Your task to perform on an android device: Open calendar and show me the fourth week of next month Image 0: 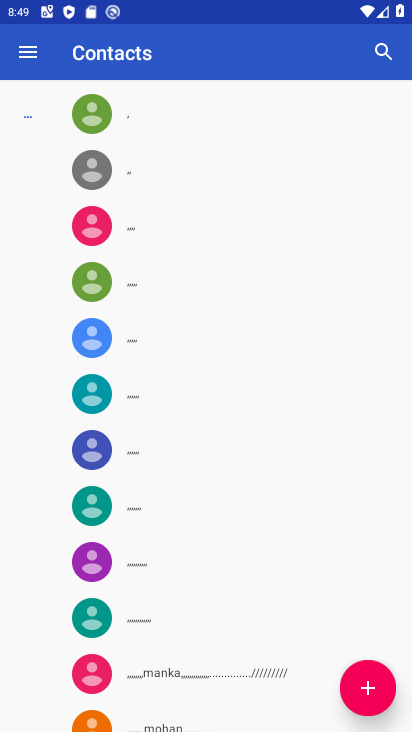
Step 0: press home button
Your task to perform on an android device: Open calendar and show me the fourth week of next month Image 1: 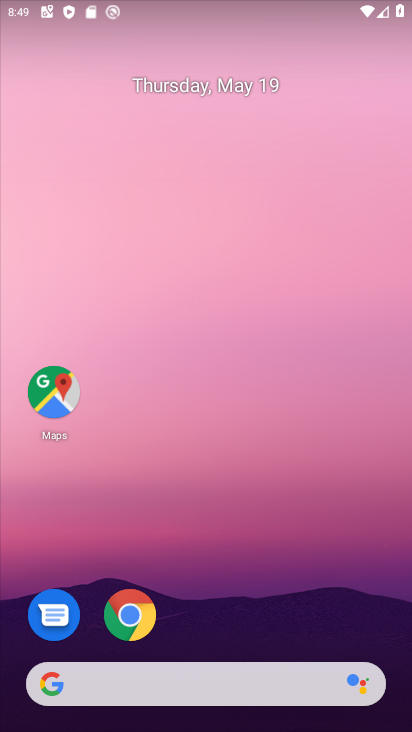
Step 1: drag from (280, 625) to (285, 53)
Your task to perform on an android device: Open calendar and show me the fourth week of next month Image 2: 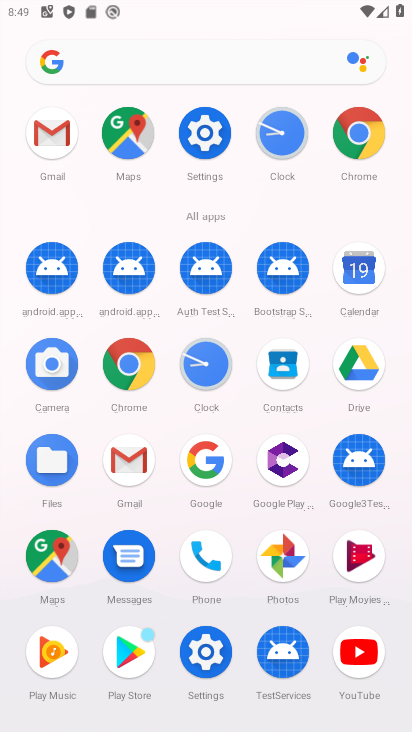
Step 2: click (361, 272)
Your task to perform on an android device: Open calendar and show me the fourth week of next month Image 3: 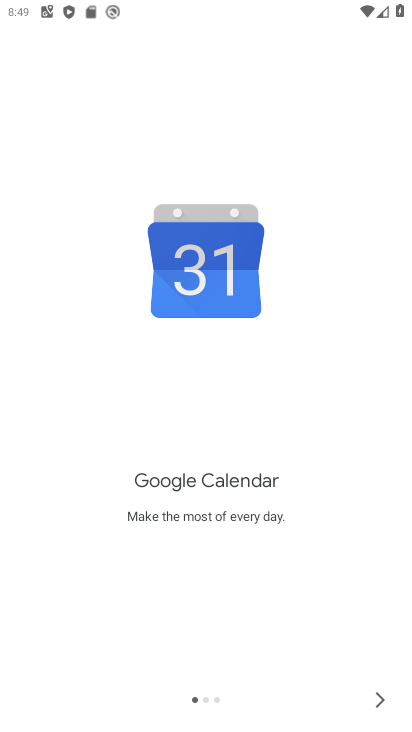
Step 3: click (380, 706)
Your task to perform on an android device: Open calendar and show me the fourth week of next month Image 4: 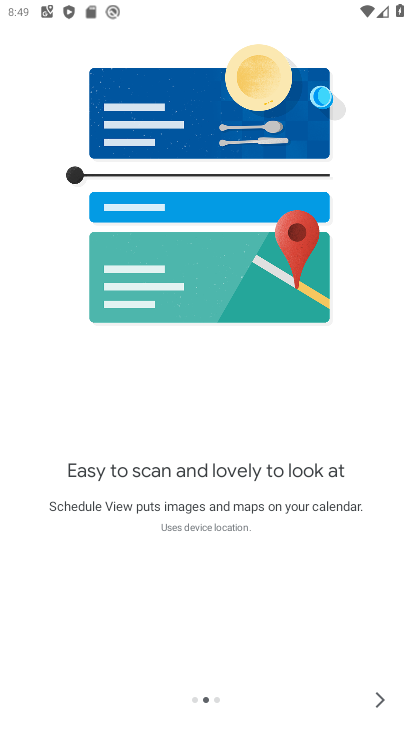
Step 4: click (379, 705)
Your task to perform on an android device: Open calendar and show me the fourth week of next month Image 5: 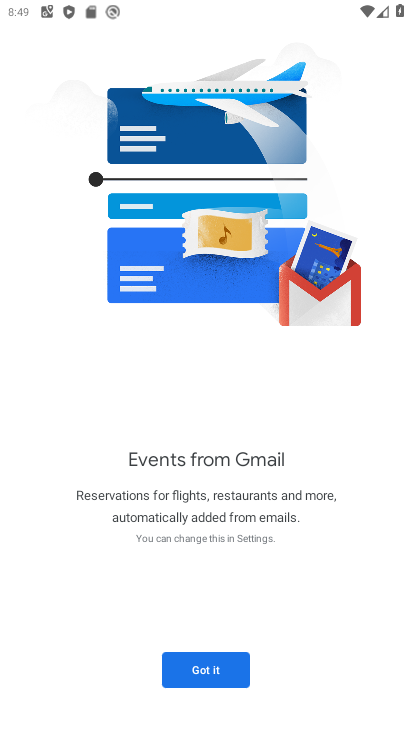
Step 5: click (240, 667)
Your task to perform on an android device: Open calendar and show me the fourth week of next month Image 6: 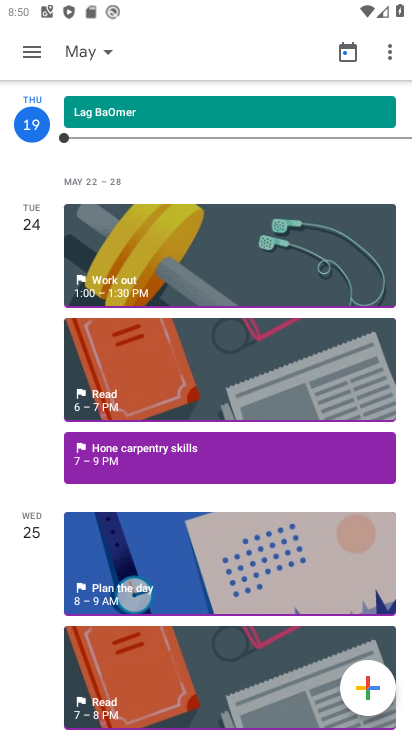
Step 6: click (105, 54)
Your task to perform on an android device: Open calendar and show me the fourth week of next month Image 7: 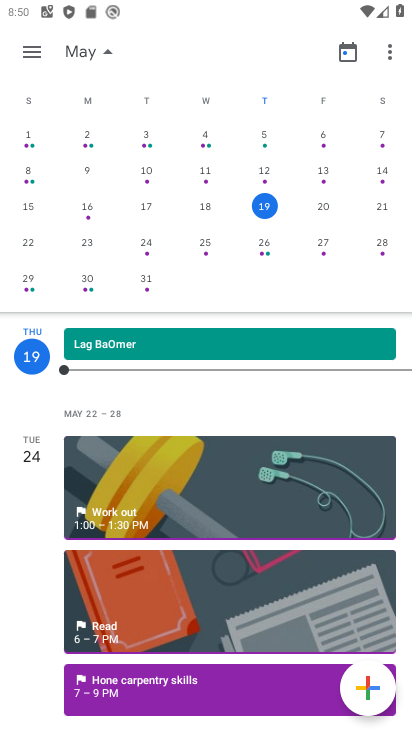
Step 7: drag from (380, 195) to (3, 283)
Your task to perform on an android device: Open calendar and show me the fourth week of next month Image 8: 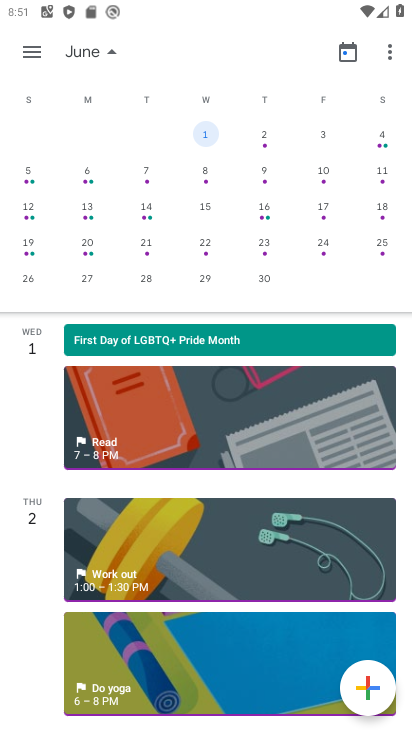
Step 8: click (196, 246)
Your task to perform on an android device: Open calendar and show me the fourth week of next month Image 9: 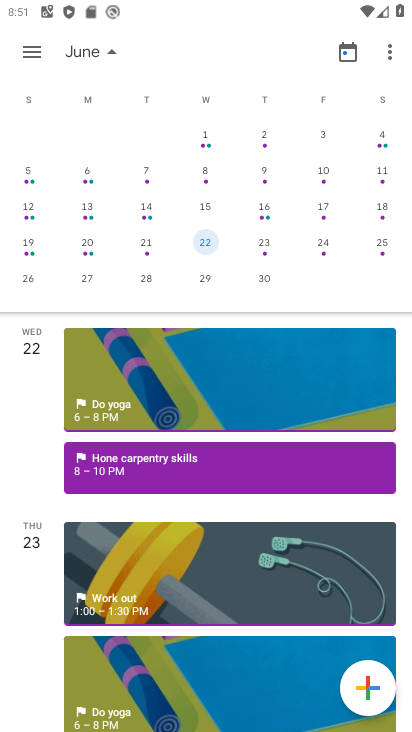
Step 9: task complete